Your task to perform on an android device: read, delete, or share a saved page in the chrome app Image 0: 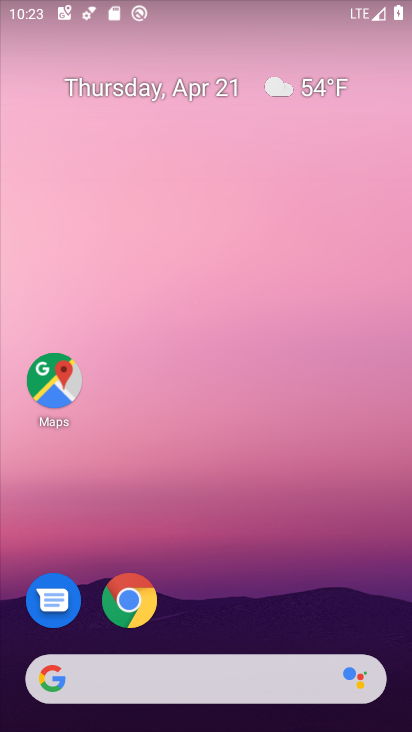
Step 0: click (128, 601)
Your task to perform on an android device: read, delete, or share a saved page in the chrome app Image 1: 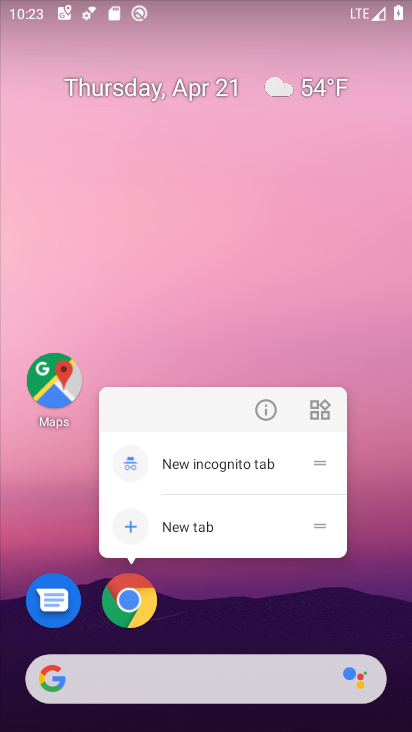
Step 1: click (132, 593)
Your task to perform on an android device: read, delete, or share a saved page in the chrome app Image 2: 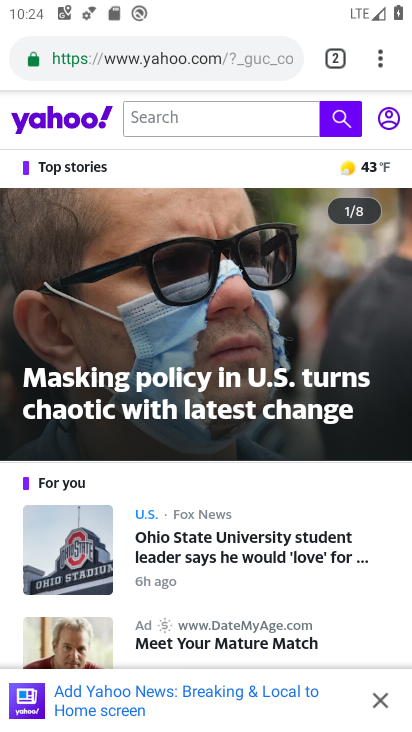
Step 2: click (384, 58)
Your task to perform on an android device: read, delete, or share a saved page in the chrome app Image 3: 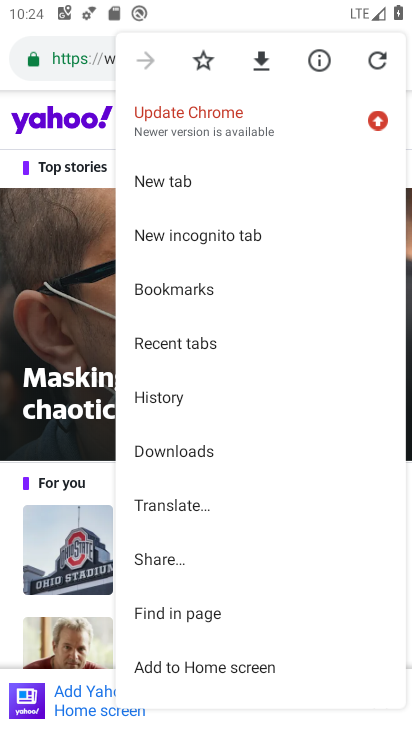
Step 3: click (199, 452)
Your task to perform on an android device: read, delete, or share a saved page in the chrome app Image 4: 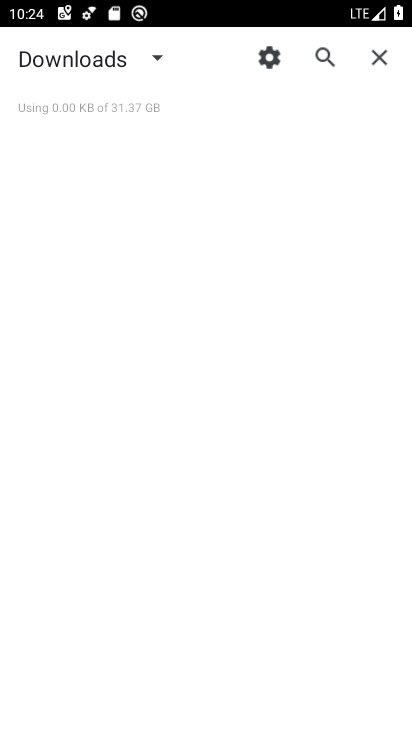
Step 4: click (146, 48)
Your task to perform on an android device: read, delete, or share a saved page in the chrome app Image 5: 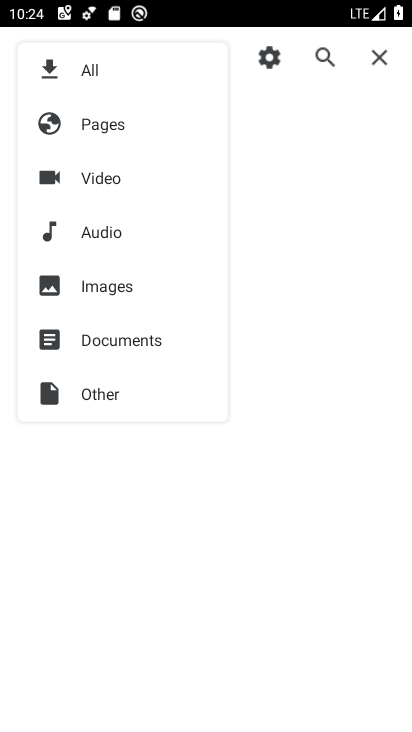
Step 5: click (124, 132)
Your task to perform on an android device: read, delete, or share a saved page in the chrome app Image 6: 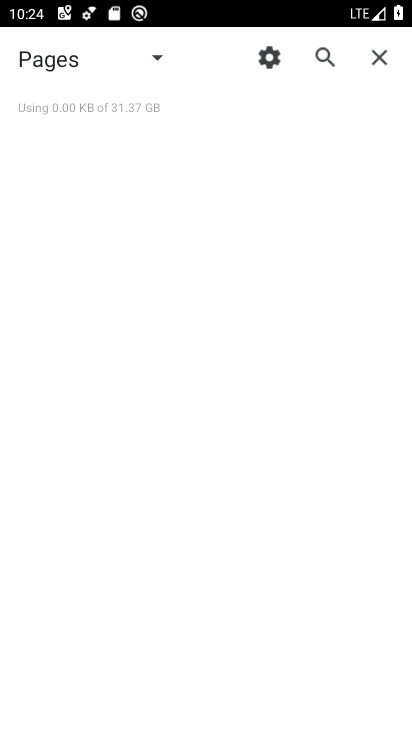
Step 6: task complete